Your task to perform on an android device: delete browsing data in the chrome app Image 0: 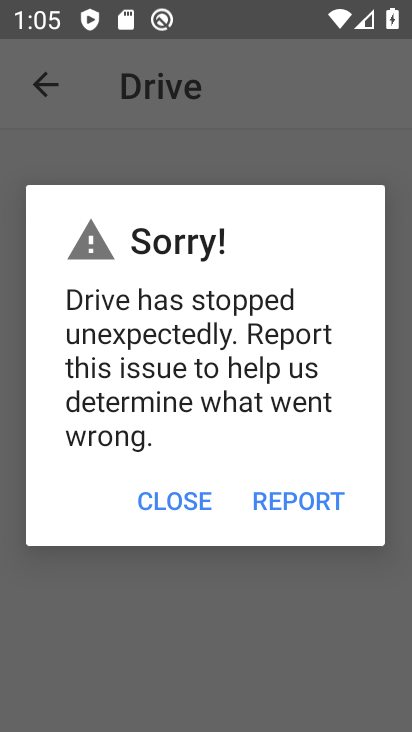
Step 0: press home button
Your task to perform on an android device: delete browsing data in the chrome app Image 1: 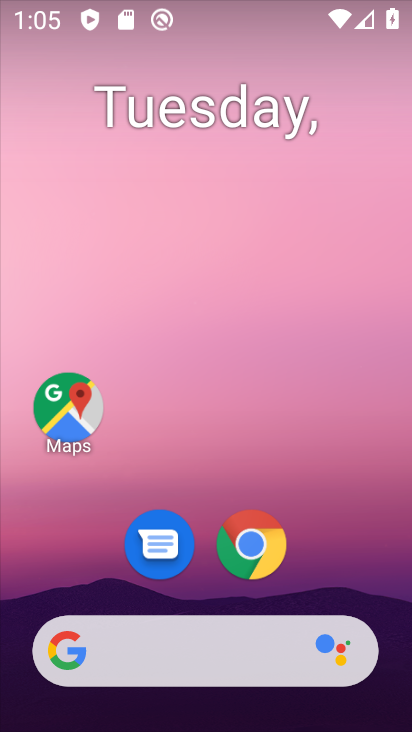
Step 1: click (251, 542)
Your task to perform on an android device: delete browsing data in the chrome app Image 2: 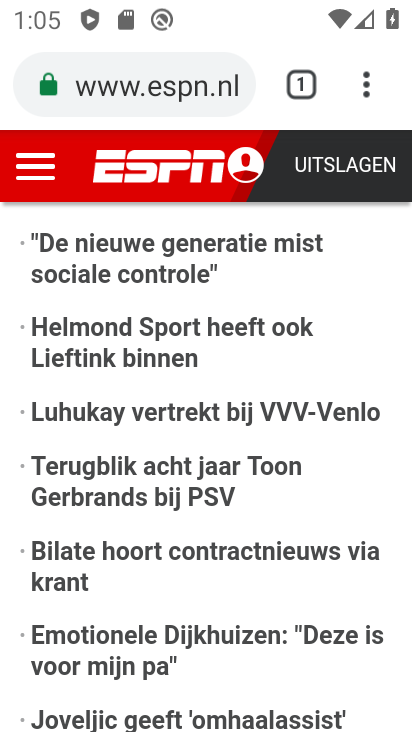
Step 2: click (367, 92)
Your task to perform on an android device: delete browsing data in the chrome app Image 3: 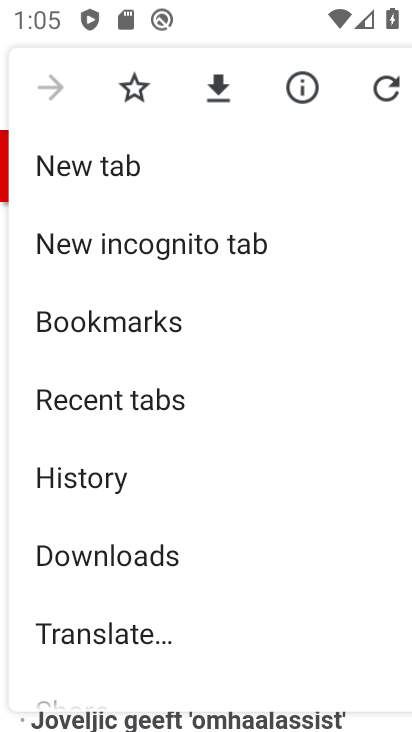
Step 3: click (102, 475)
Your task to perform on an android device: delete browsing data in the chrome app Image 4: 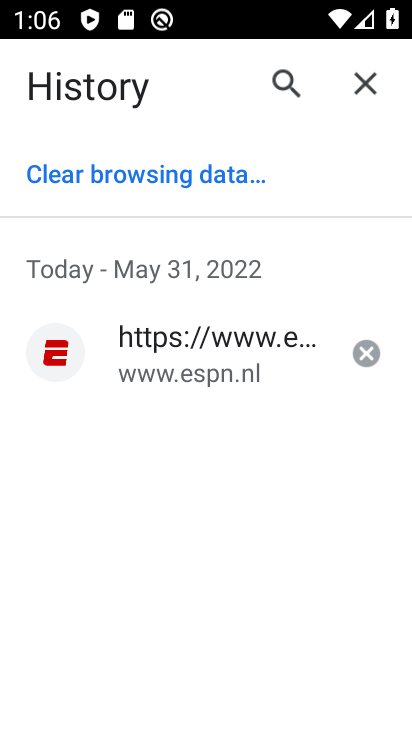
Step 4: click (145, 170)
Your task to perform on an android device: delete browsing data in the chrome app Image 5: 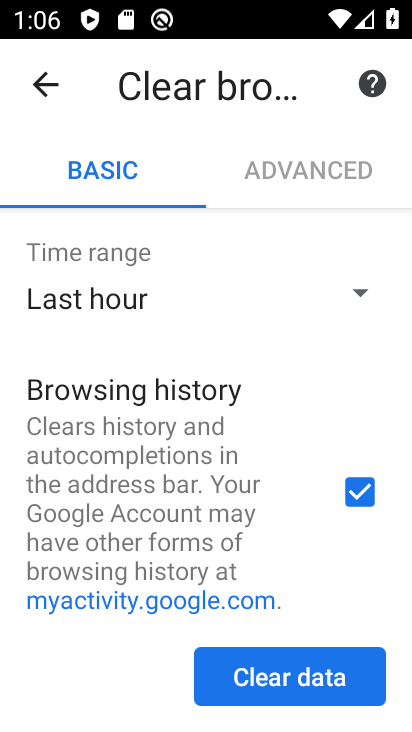
Step 5: drag from (287, 571) to (271, 261)
Your task to perform on an android device: delete browsing data in the chrome app Image 6: 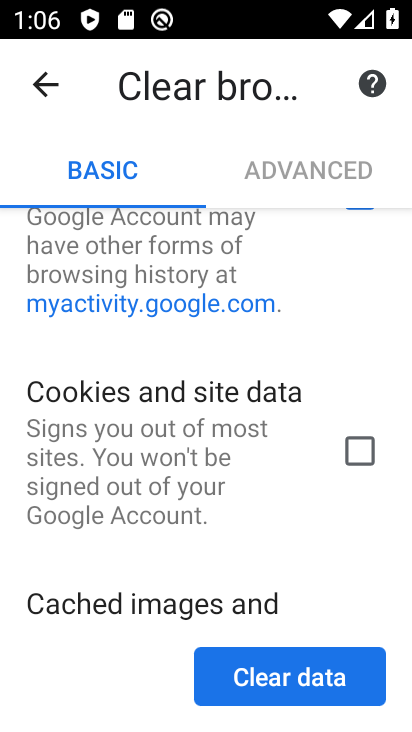
Step 6: drag from (317, 576) to (293, 206)
Your task to perform on an android device: delete browsing data in the chrome app Image 7: 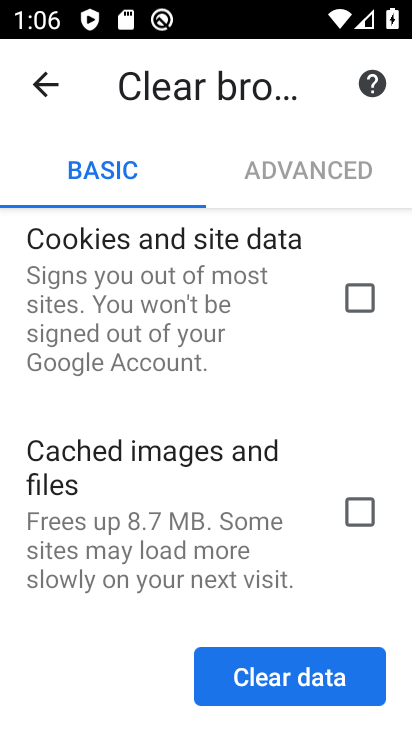
Step 7: click (289, 675)
Your task to perform on an android device: delete browsing data in the chrome app Image 8: 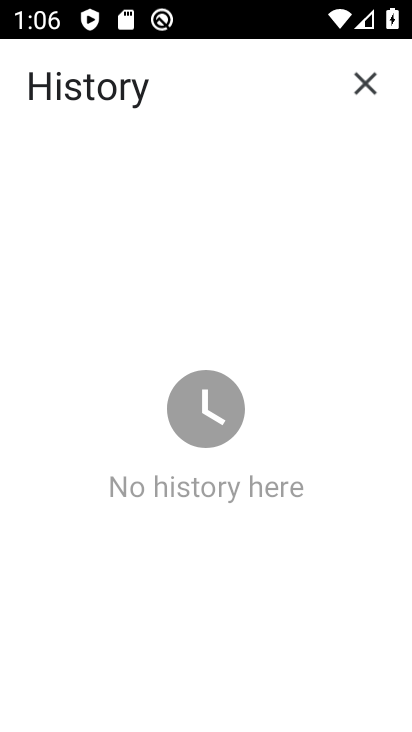
Step 8: task complete